Your task to perform on an android device: Search for the best selling phone on AliExpress Image 0: 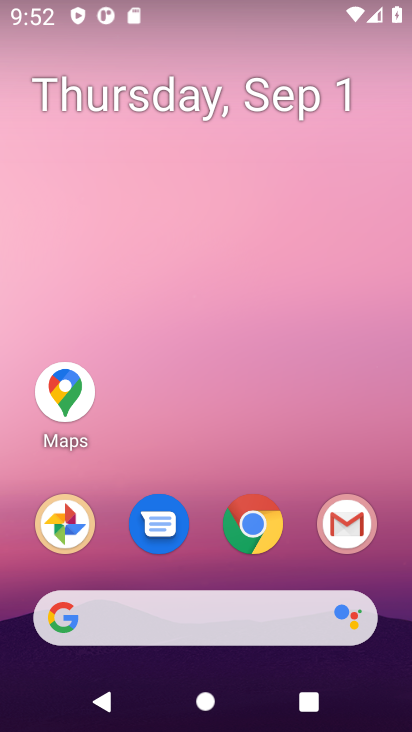
Step 0: drag from (395, 529) to (388, 168)
Your task to perform on an android device: Search for the best selling phone on AliExpress Image 1: 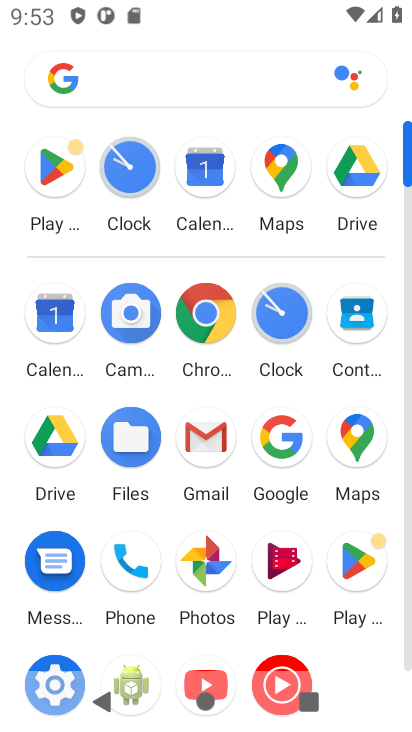
Step 1: click (198, 311)
Your task to perform on an android device: Search for the best selling phone on AliExpress Image 2: 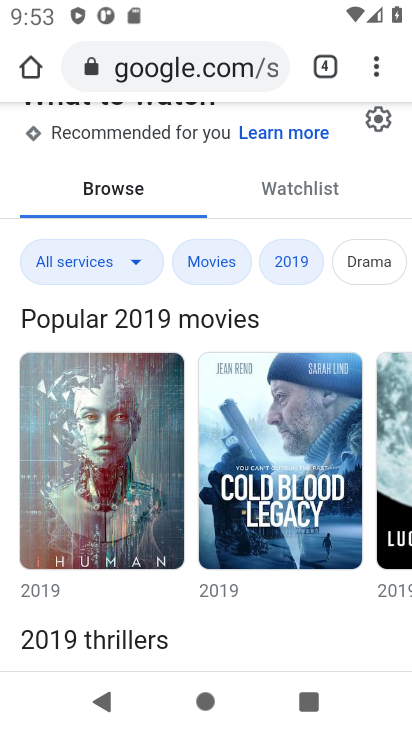
Step 2: press back button
Your task to perform on an android device: Search for the best selling phone on AliExpress Image 3: 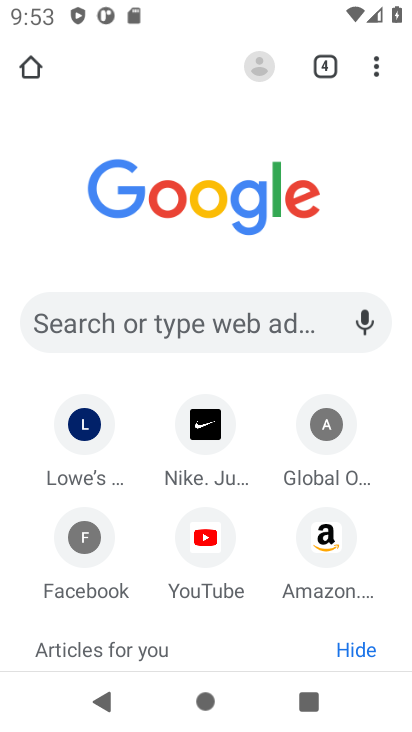
Step 3: click (275, 323)
Your task to perform on an android device: Search for the best selling phone on AliExpress Image 4: 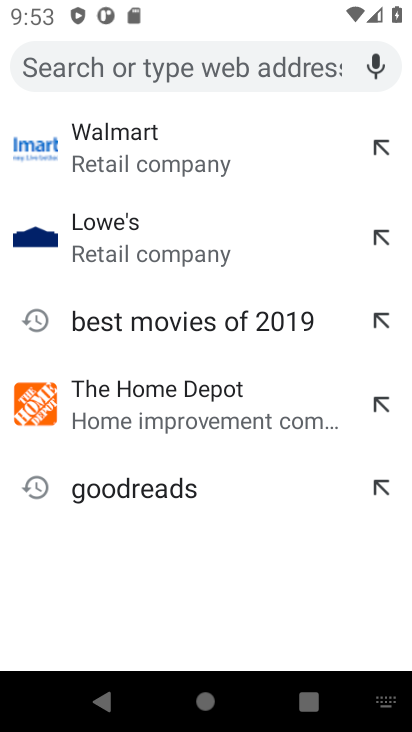
Step 4: press enter
Your task to perform on an android device: Search for the best selling phone on AliExpress Image 5: 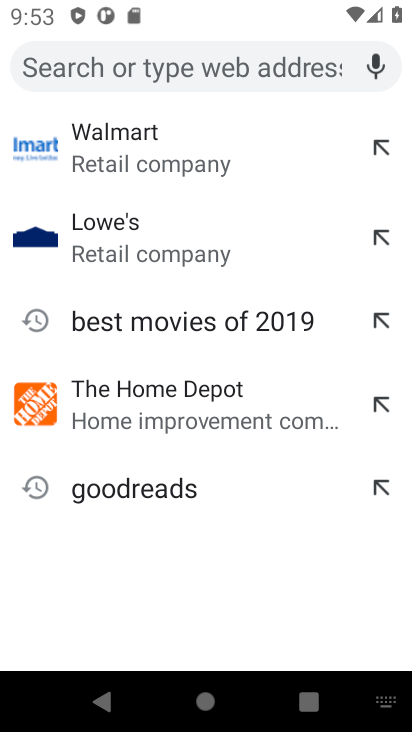
Step 5: type "aliexpress"
Your task to perform on an android device: Search for the best selling phone on AliExpress Image 6: 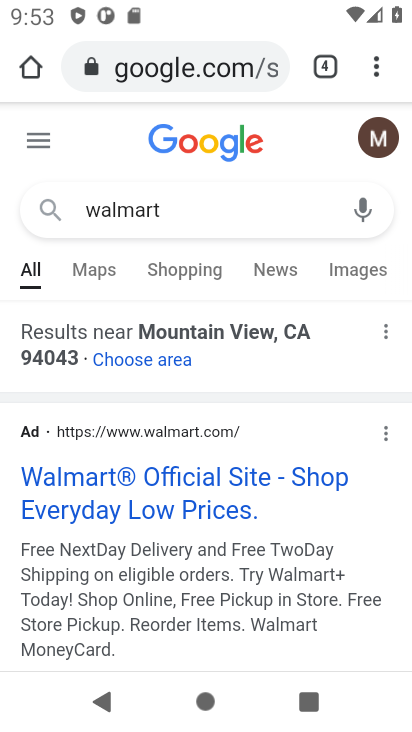
Step 6: click (194, 57)
Your task to perform on an android device: Search for the best selling phone on AliExpress Image 7: 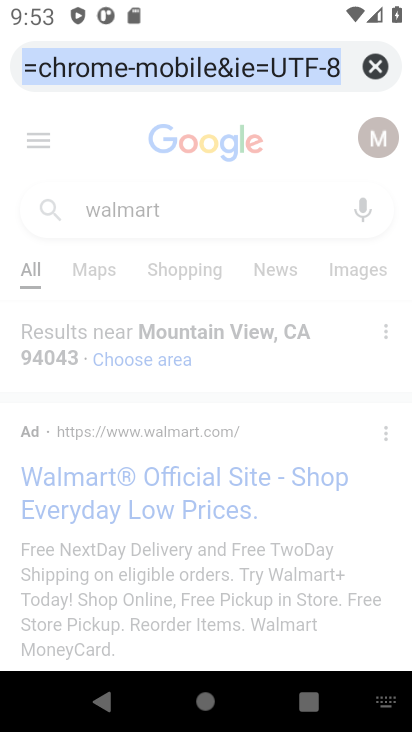
Step 7: type "aliexpress"
Your task to perform on an android device: Search for the best selling phone on AliExpress Image 8: 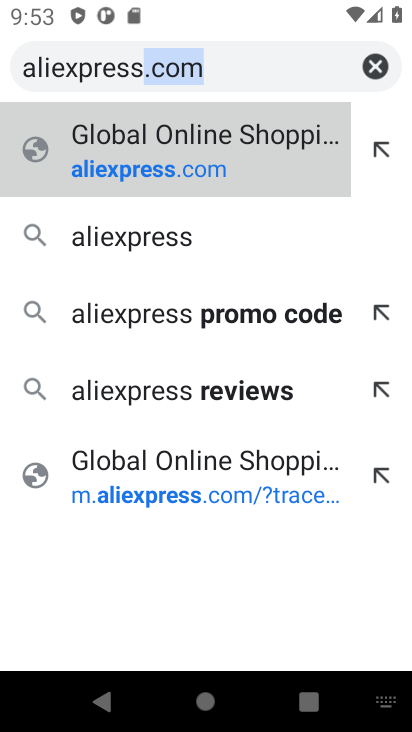
Step 8: click (168, 241)
Your task to perform on an android device: Search for the best selling phone on AliExpress Image 9: 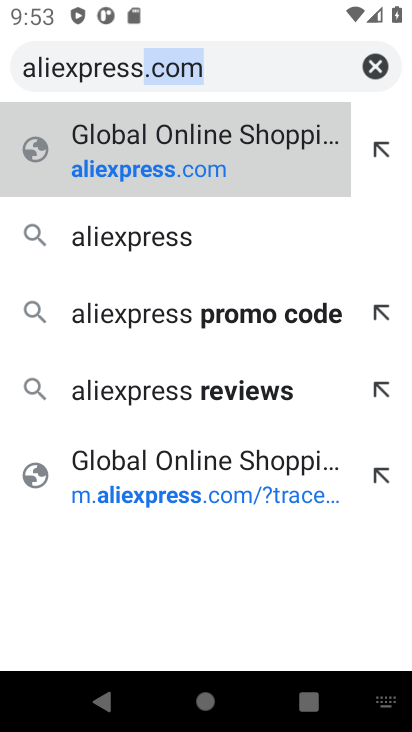
Step 9: click (143, 243)
Your task to perform on an android device: Search for the best selling phone on AliExpress Image 10: 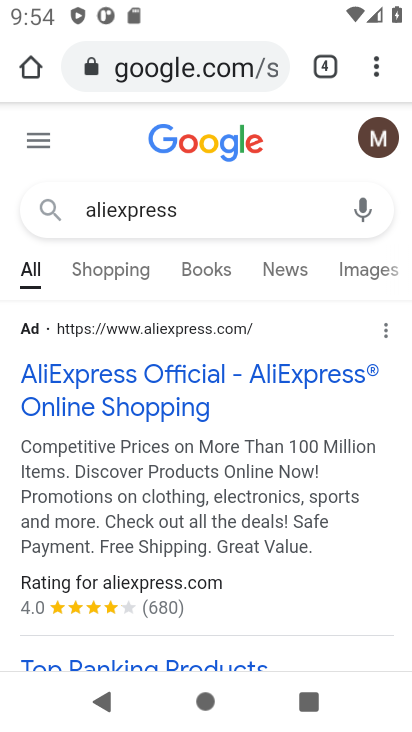
Step 10: click (195, 398)
Your task to perform on an android device: Search for the best selling phone on AliExpress Image 11: 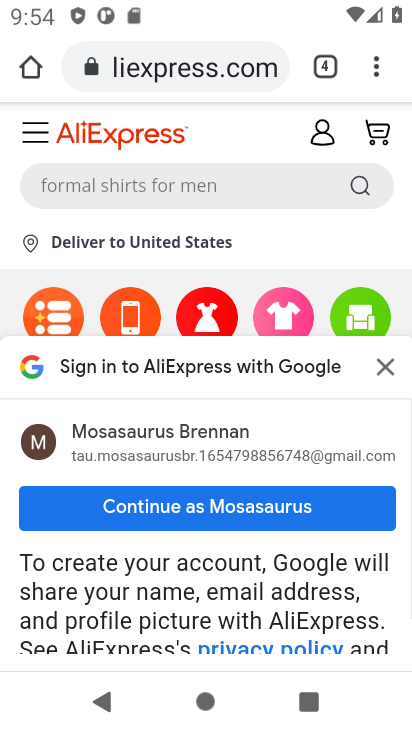
Step 11: click (383, 358)
Your task to perform on an android device: Search for the best selling phone on AliExpress Image 12: 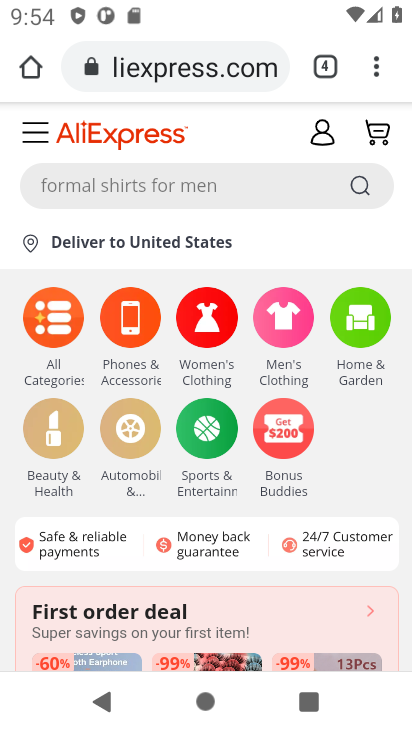
Step 12: click (206, 181)
Your task to perform on an android device: Search for the best selling phone on AliExpress Image 13: 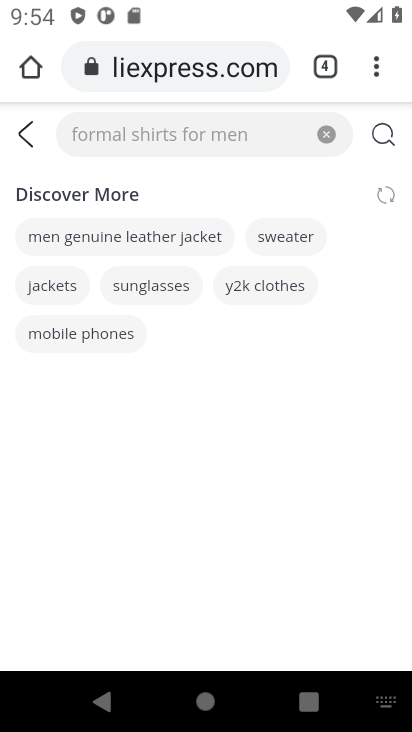
Step 13: type " best selling phone"
Your task to perform on an android device: Search for the best selling phone on AliExpress Image 14: 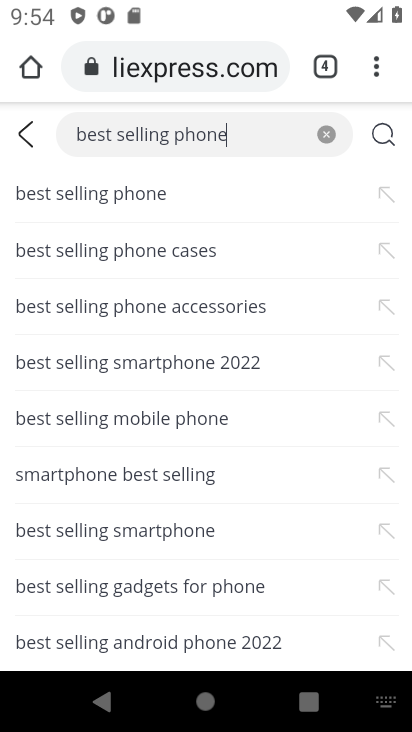
Step 14: click (195, 192)
Your task to perform on an android device: Search for the best selling phone on AliExpress Image 15: 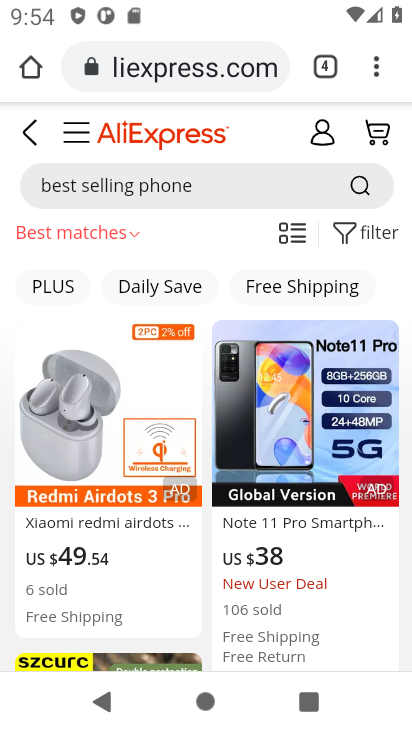
Step 15: task complete